Your task to perform on an android device: Search for sushi restaurants on Maps Image 0: 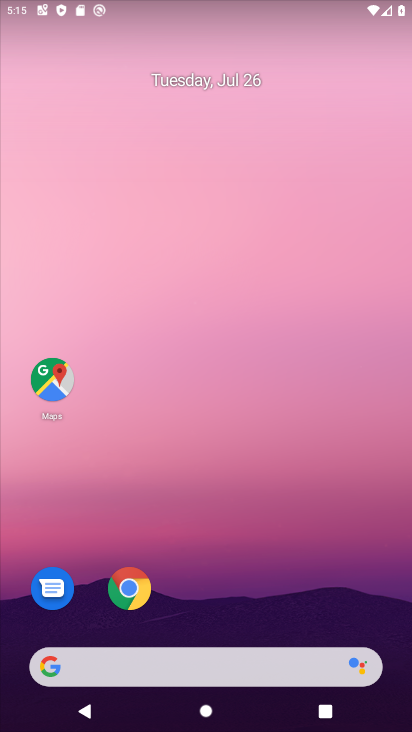
Step 0: drag from (228, 626) to (263, 0)
Your task to perform on an android device: Search for sushi restaurants on Maps Image 1: 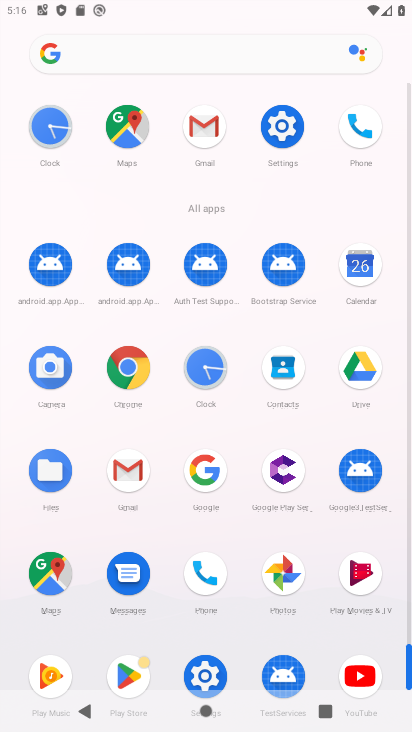
Step 1: click (55, 578)
Your task to perform on an android device: Search for sushi restaurants on Maps Image 2: 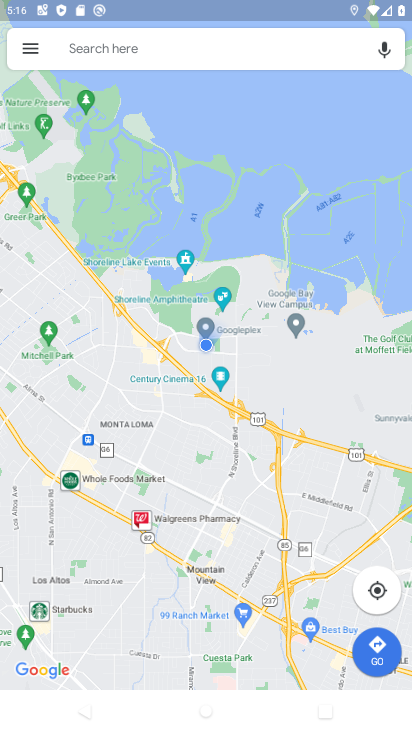
Step 2: click (209, 50)
Your task to perform on an android device: Search for sushi restaurants on Maps Image 3: 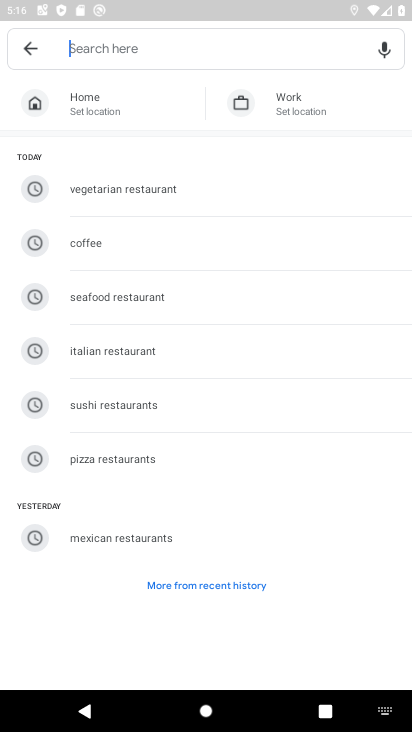
Step 3: click (131, 402)
Your task to perform on an android device: Search for sushi restaurants on Maps Image 4: 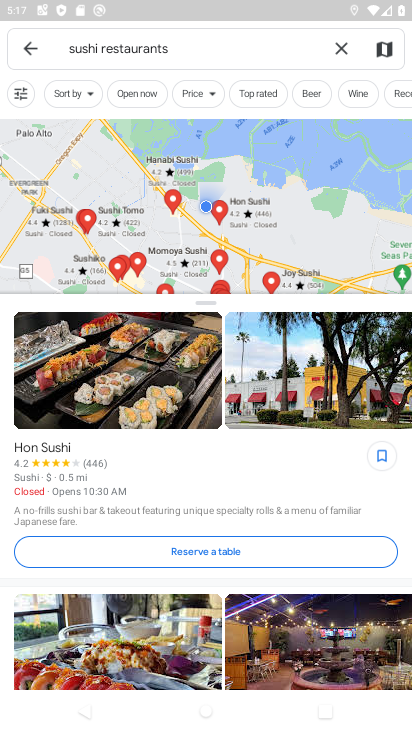
Step 4: task complete